Your task to perform on an android device: Set the phone to "Do not disturb". Image 0: 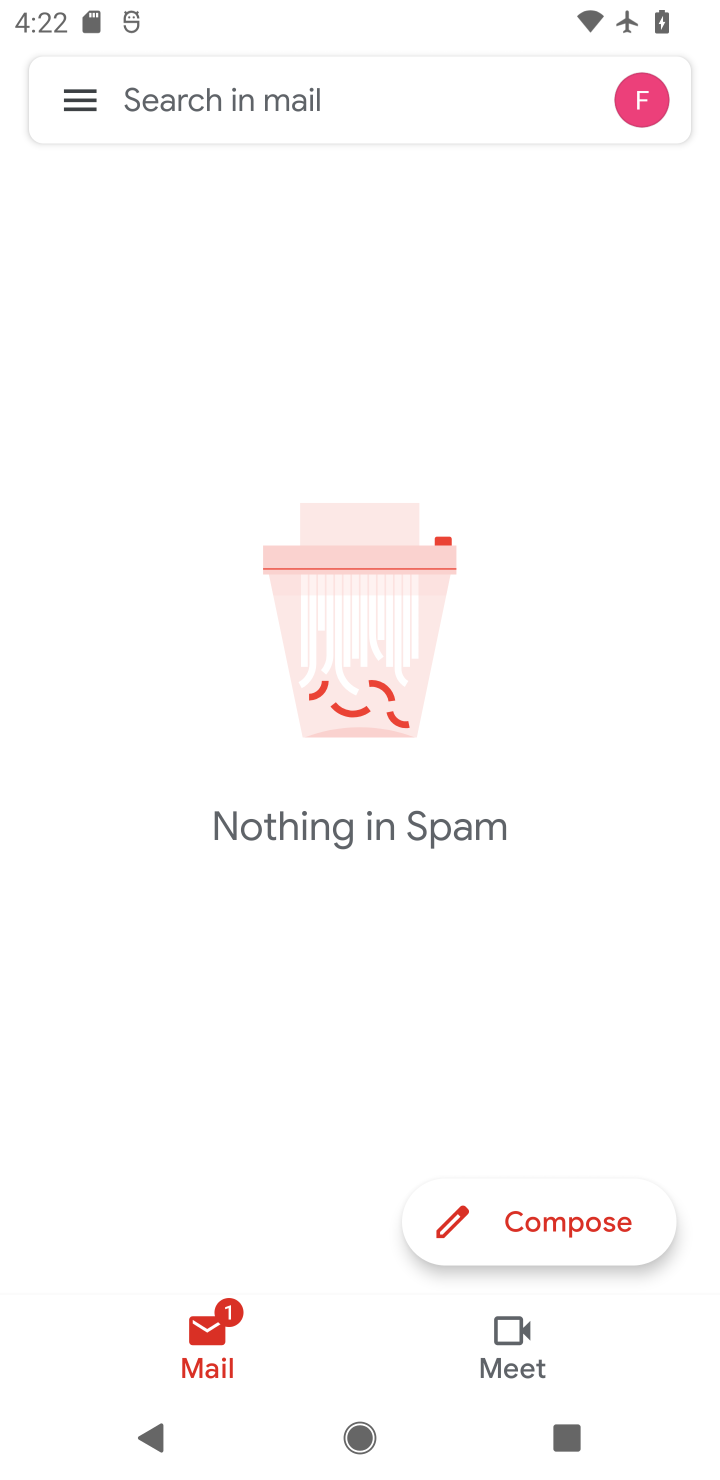
Step 0: drag from (303, 6) to (395, 1463)
Your task to perform on an android device: Set the phone to "Do not disturb". Image 1: 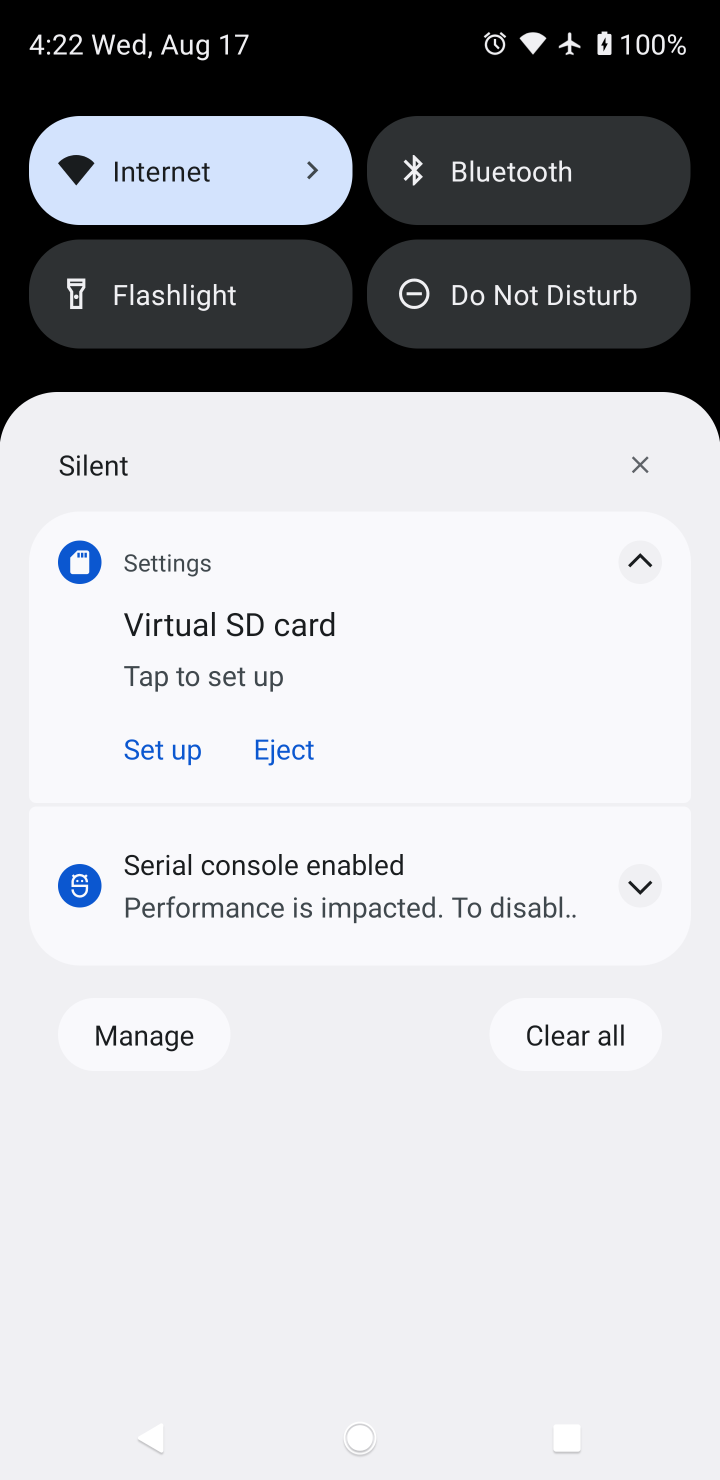
Step 1: click (483, 291)
Your task to perform on an android device: Set the phone to "Do not disturb". Image 2: 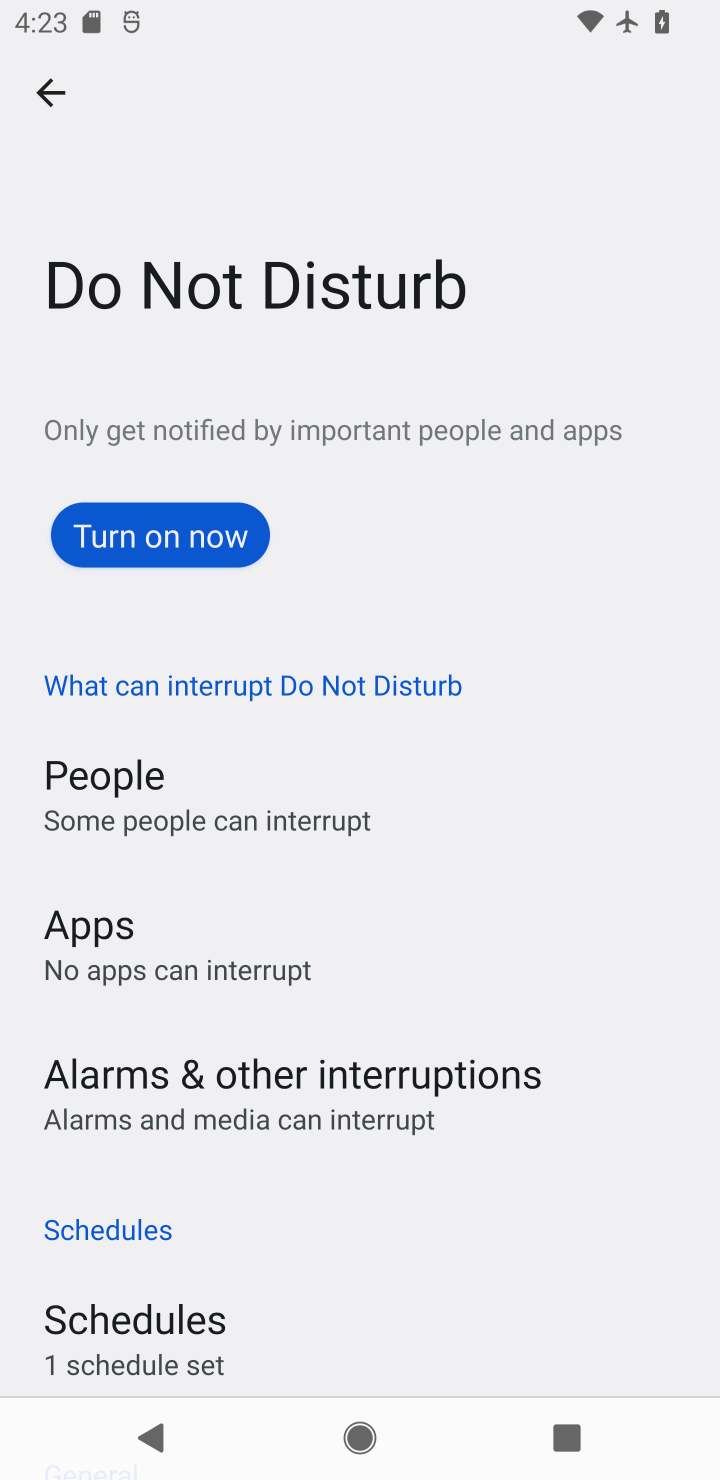
Step 2: click (149, 516)
Your task to perform on an android device: Set the phone to "Do not disturb". Image 3: 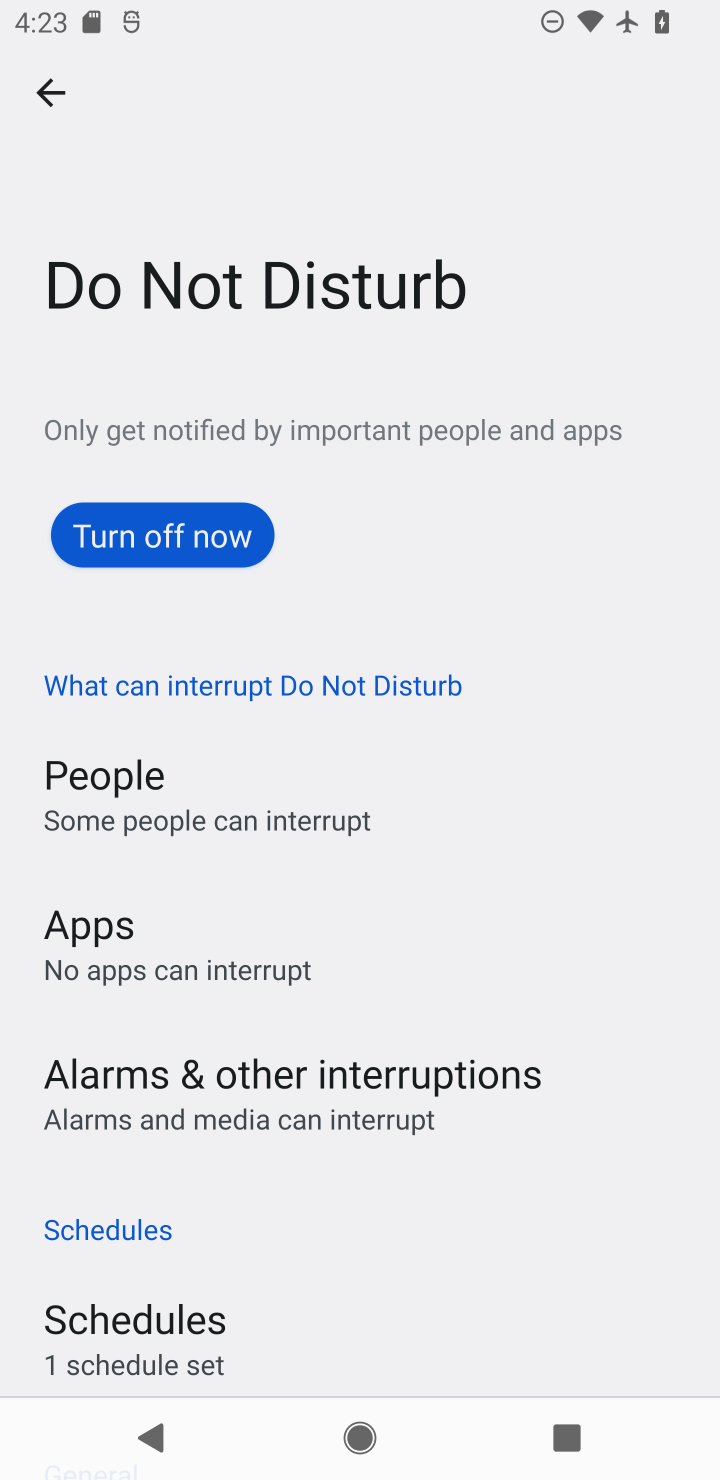
Step 3: click (149, 520)
Your task to perform on an android device: Set the phone to "Do not disturb". Image 4: 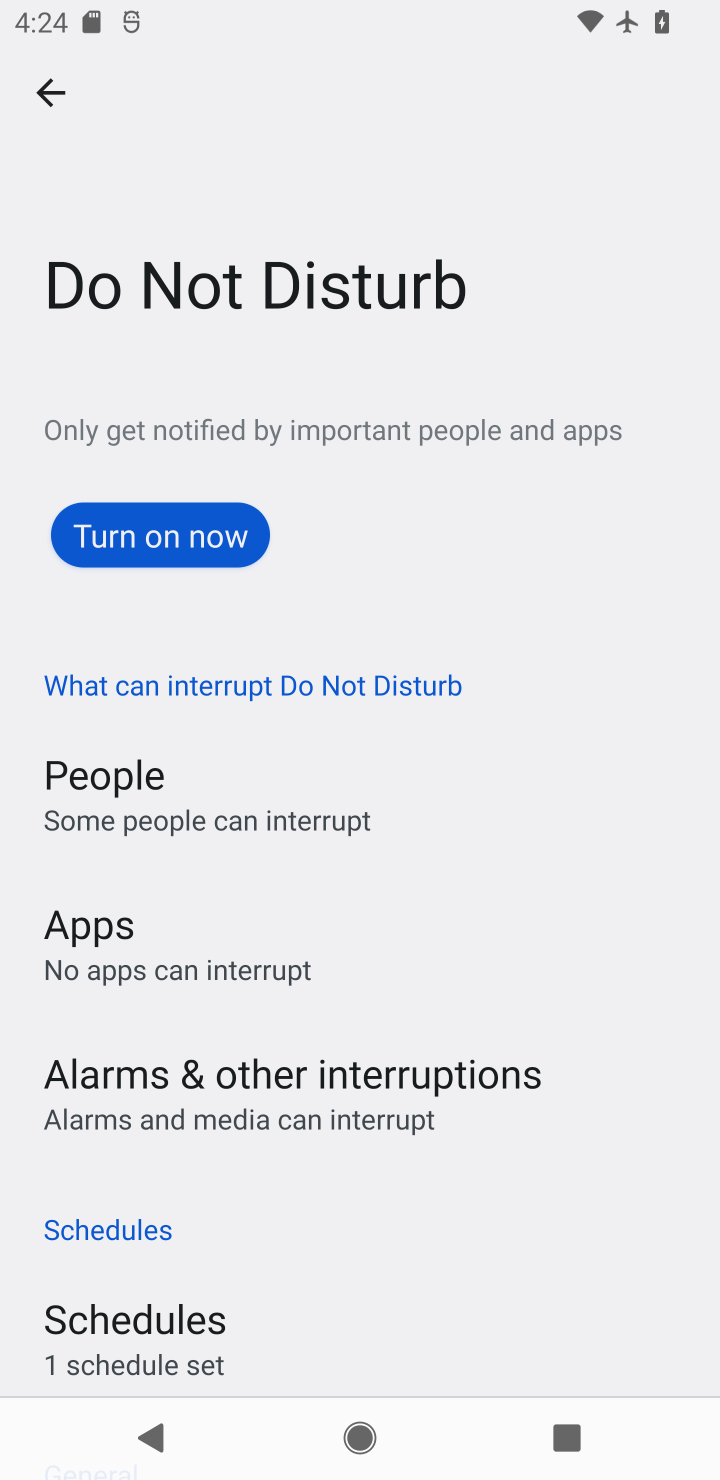
Step 4: task complete